Your task to perform on an android device: turn notification dots off Image 0: 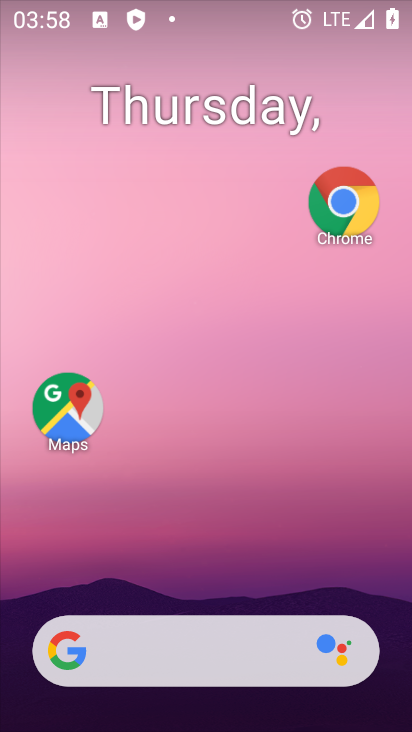
Step 0: drag from (333, 587) to (303, 16)
Your task to perform on an android device: turn notification dots off Image 1: 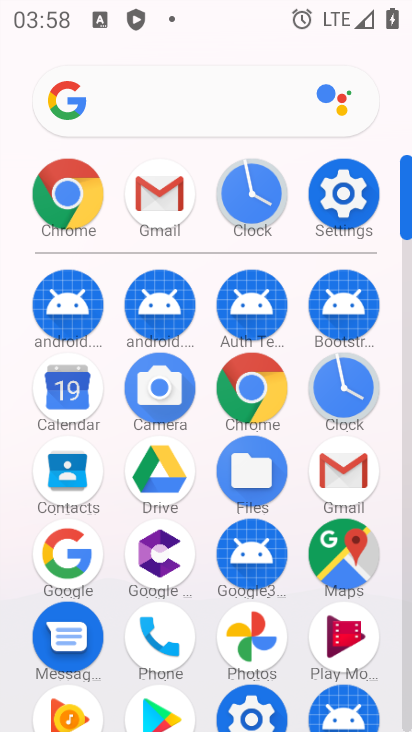
Step 1: click (348, 202)
Your task to perform on an android device: turn notification dots off Image 2: 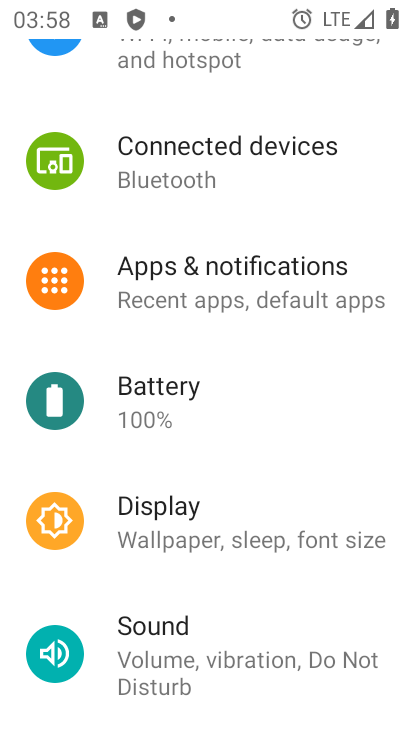
Step 2: click (312, 296)
Your task to perform on an android device: turn notification dots off Image 3: 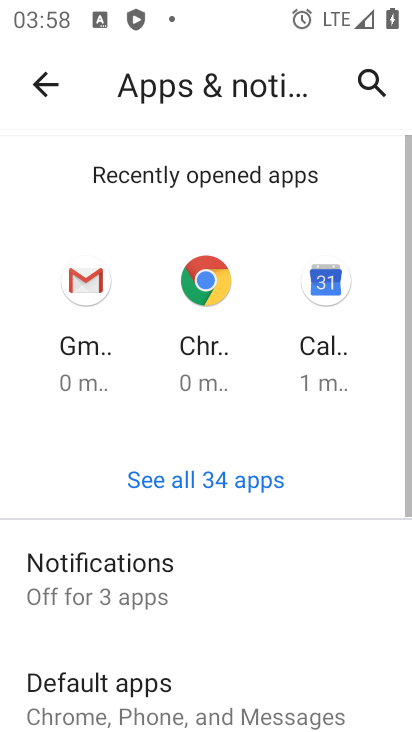
Step 3: drag from (289, 604) to (308, 91)
Your task to perform on an android device: turn notification dots off Image 4: 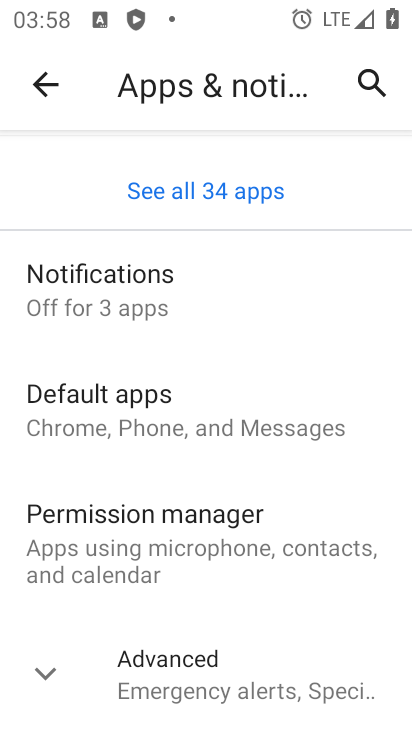
Step 4: click (238, 675)
Your task to perform on an android device: turn notification dots off Image 5: 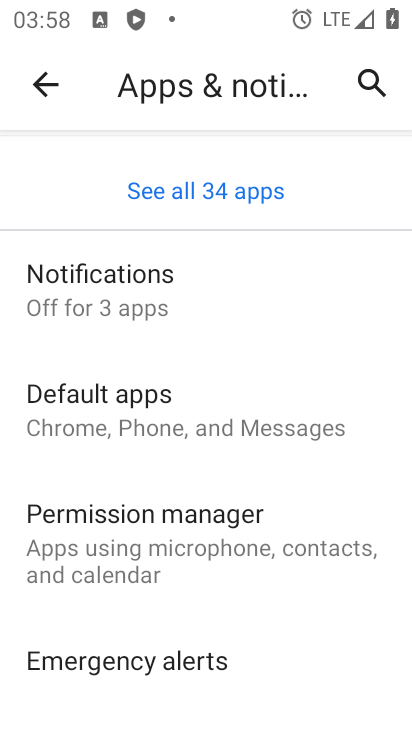
Step 5: click (209, 304)
Your task to perform on an android device: turn notification dots off Image 6: 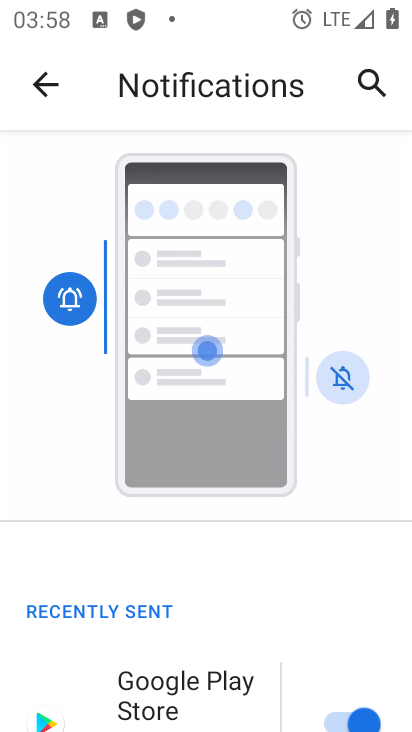
Step 6: drag from (260, 714) to (240, 134)
Your task to perform on an android device: turn notification dots off Image 7: 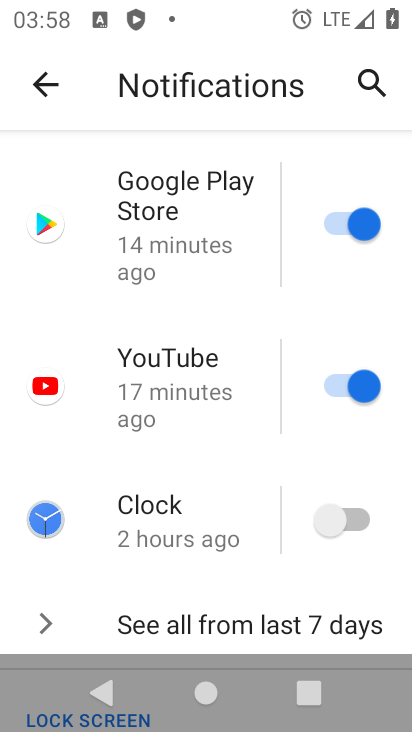
Step 7: drag from (204, 536) to (232, 87)
Your task to perform on an android device: turn notification dots off Image 8: 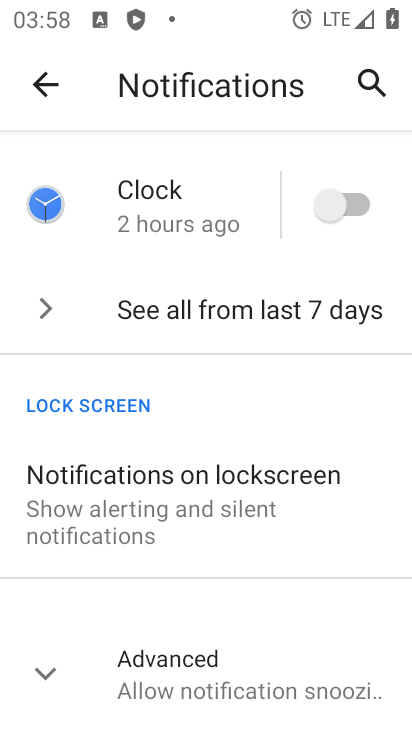
Step 8: click (238, 479)
Your task to perform on an android device: turn notification dots off Image 9: 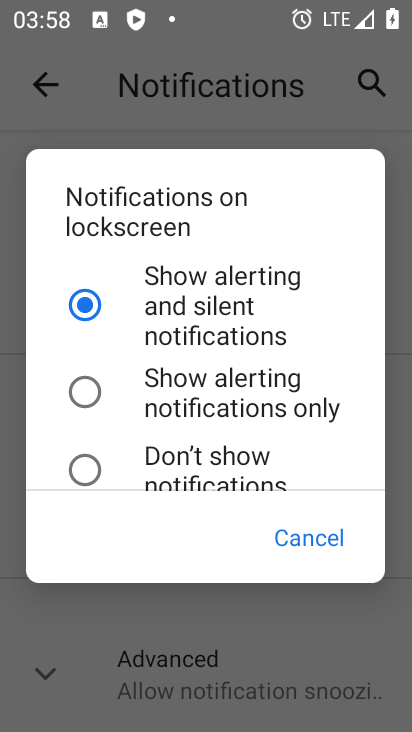
Step 9: click (299, 531)
Your task to perform on an android device: turn notification dots off Image 10: 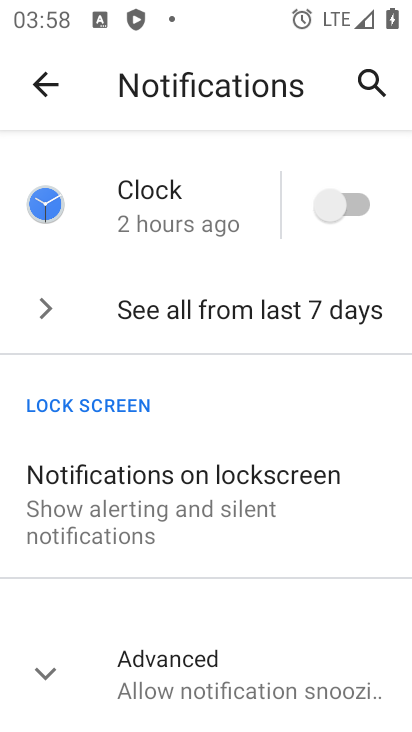
Step 10: click (267, 689)
Your task to perform on an android device: turn notification dots off Image 11: 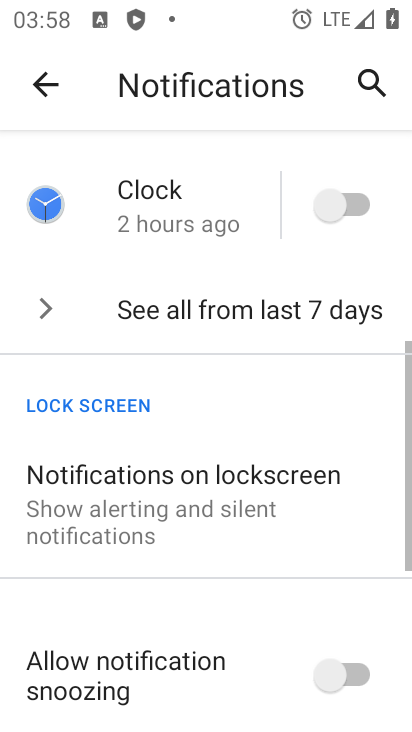
Step 11: task complete